Your task to perform on an android device: stop showing notifications on the lock screen Image 0: 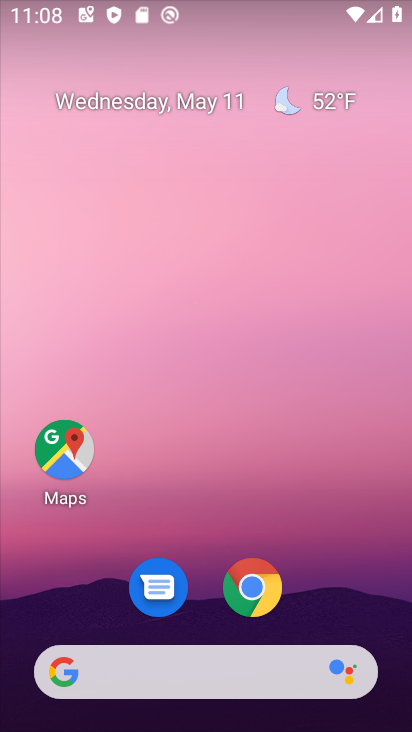
Step 0: drag from (222, 707) to (299, 331)
Your task to perform on an android device: stop showing notifications on the lock screen Image 1: 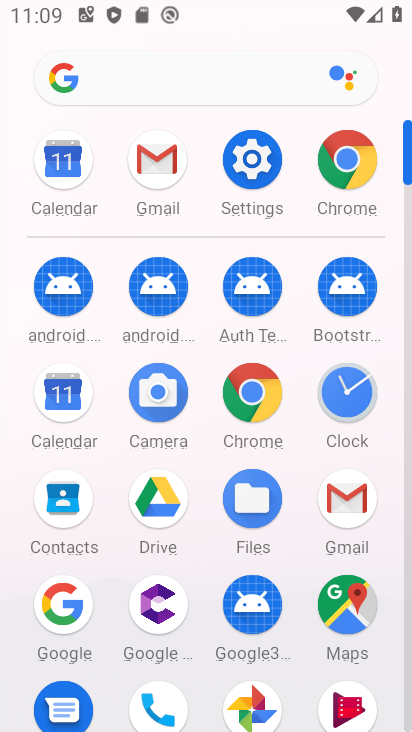
Step 1: click (263, 182)
Your task to perform on an android device: stop showing notifications on the lock screen Image 2: 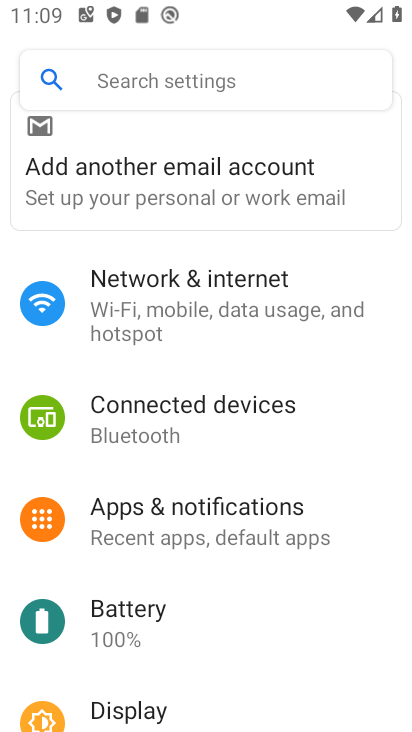
Step 2: click (157, 87)
Your task to perform on an android device: stop showing notifications on the lock screen Image 3: 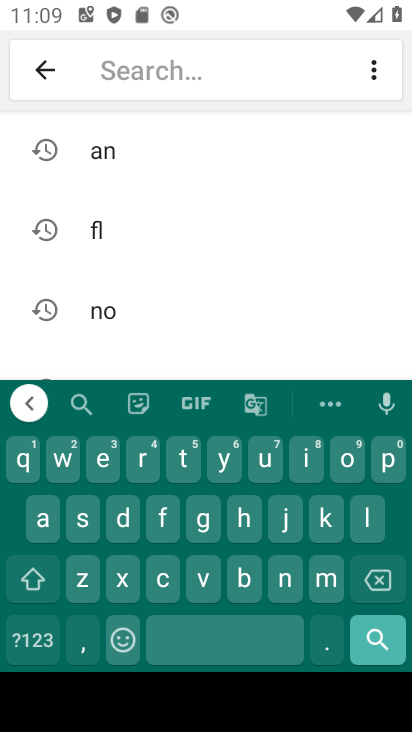
Step 3: click (129, 312)
Your task to perform on an android device: stop showing notifications on the lock screen Image 4: 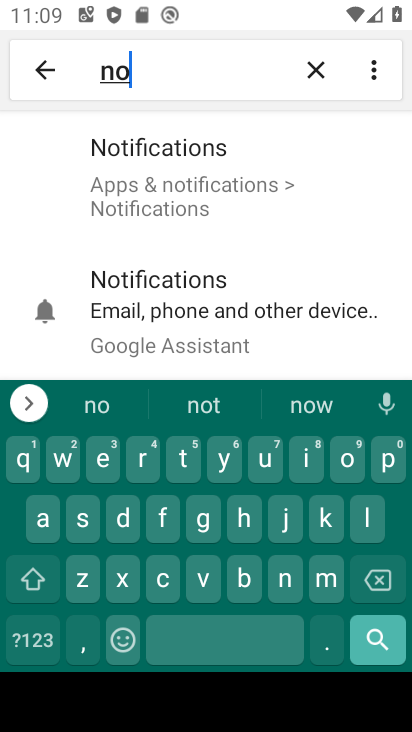
Step 4: click (168, 202)
Your task to perform on an android device: stop showing notifications on the lock screen Image 5: 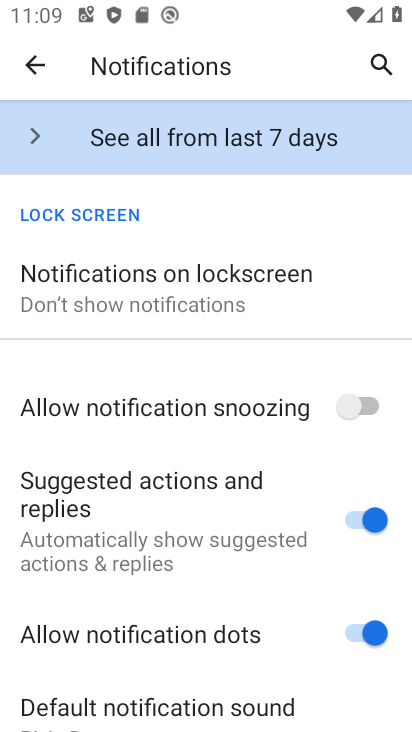
Step 5: click (94, 303)
Your task to perform on an android device: stop showing notifications on the lock screen Image 6: 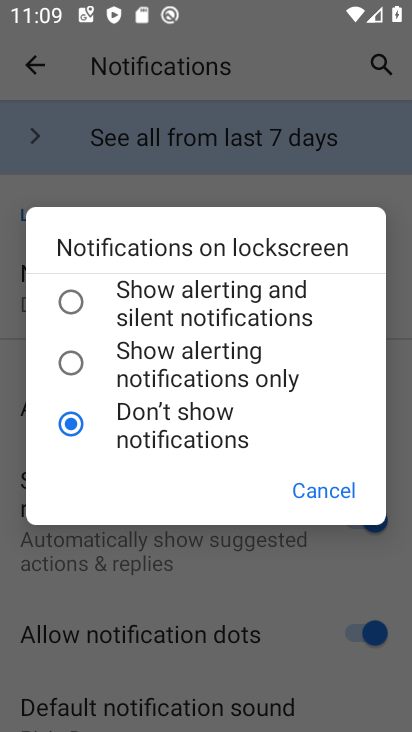
Step 6: click (121, 421)
Your task to perform on an android device: stop showing notifications on the lock screen Image 7: 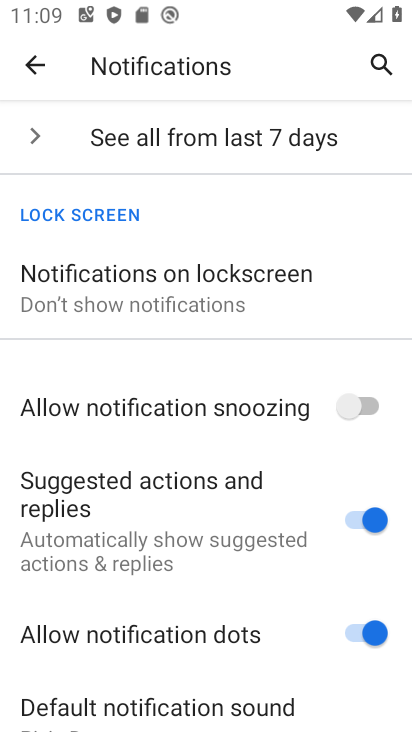
Step 7: task complete